Your task to perform on an android device: change notifications settings Image 0: 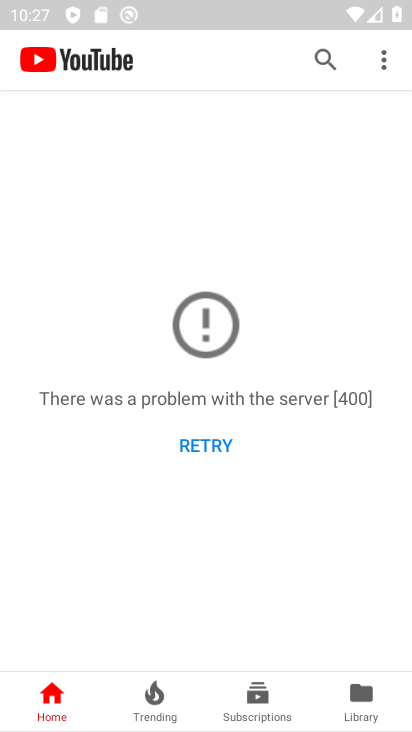
Step 0: press home button
Your task to perform on an android device: change notifications settings Image 1: 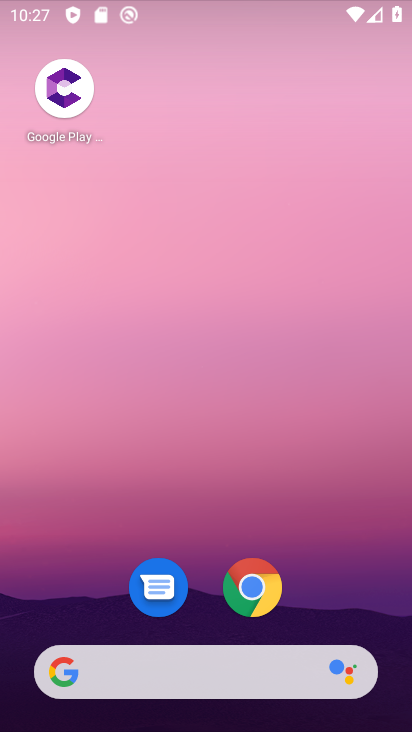
Step 1: drag from (372, 633) to (285, 121)
Your task to perform on an android device: change notifications settings Image 2: 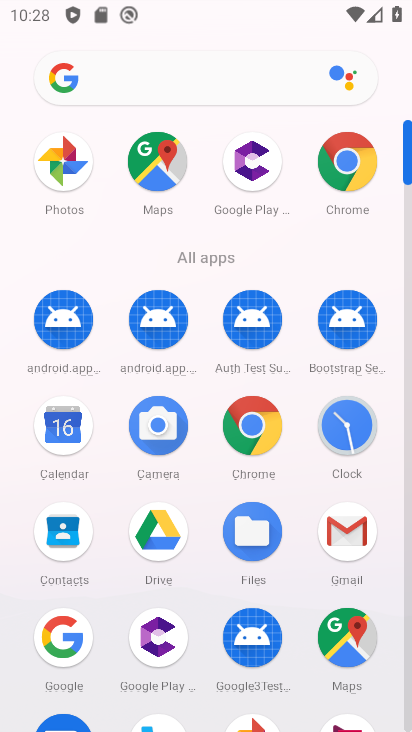
Step 2: drag from (205, 676) to (191, 289)
Your task to perform on an android device: change notifications settings Image 3: 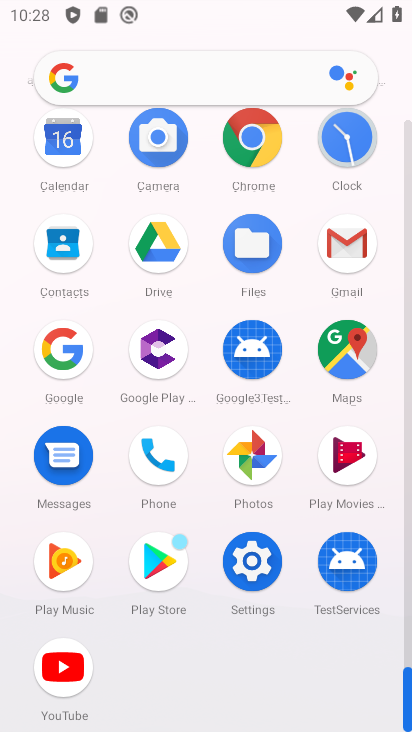
Step 3: click (242, 568)
Your task to perform on an android device: change notifications settings Image 4: 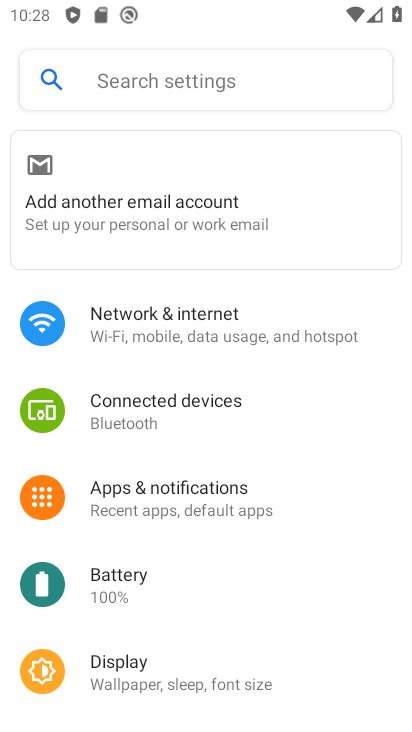
Step 4: click (217, 491)
Your task to perform on an android device: change notifications settings Image 5: 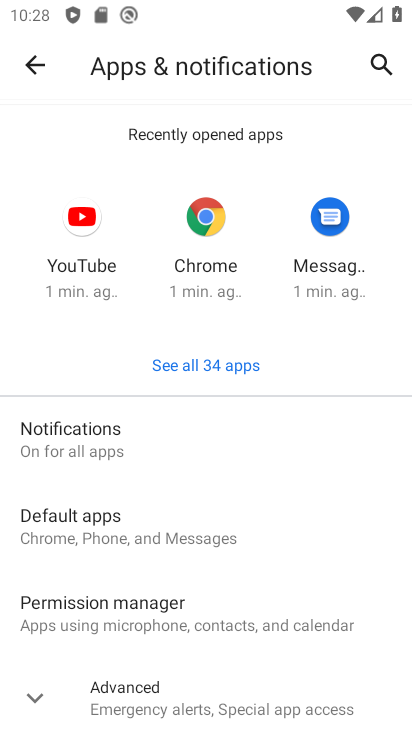
Step 5: task complete